Your task to perform on an android device: Open Amazon Image 0: 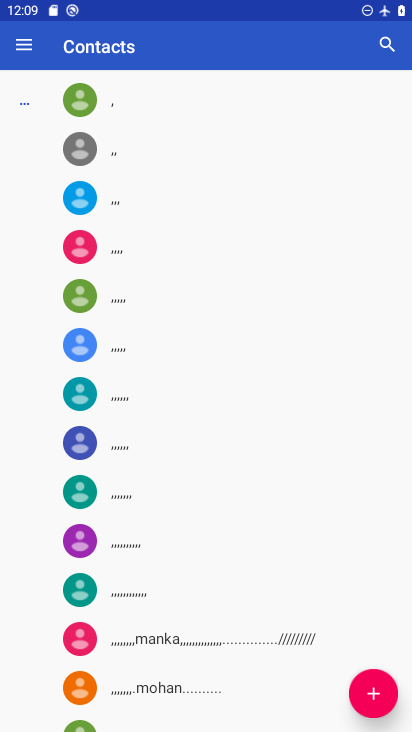
Step 0: press home button
Your task to perform on an android device: Open Amazon Image 1: 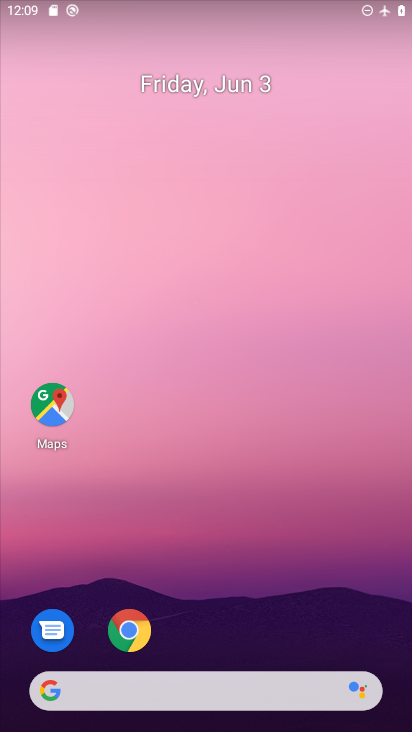
Step 1: click (143, 631)
Your task to perform on an android device: Open Amazon Image 2: 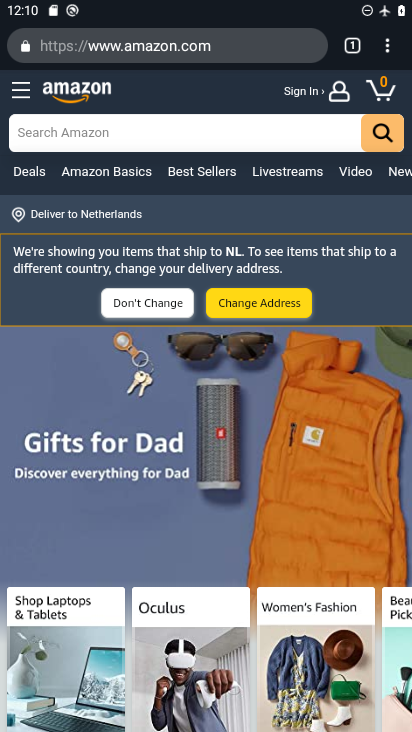
Step 2: task complete